Your task to perform on an android device: Open Amazon Image 0: 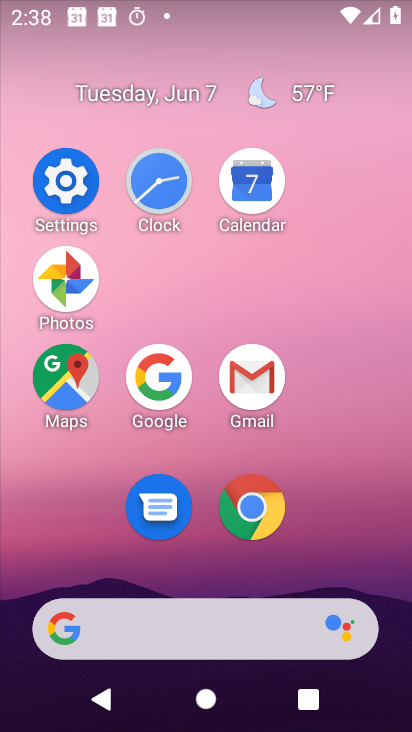
Step 0: click (242, 516)
Your task to perform on an android device: Open Amazon Image 1: 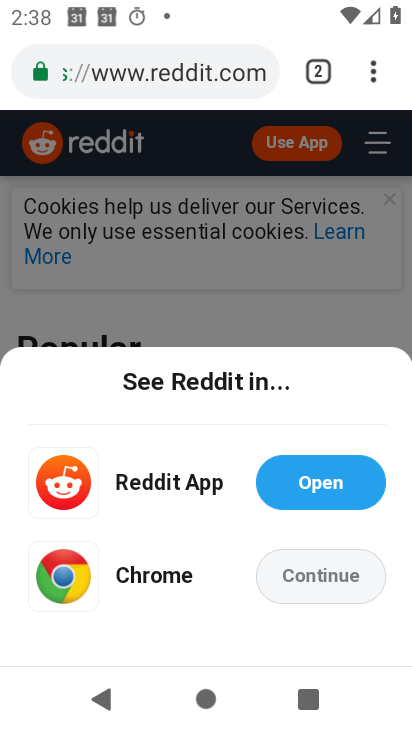
Step 1: click (320, 78)
Your task to perform on an android device: Open Amazon Image 2: 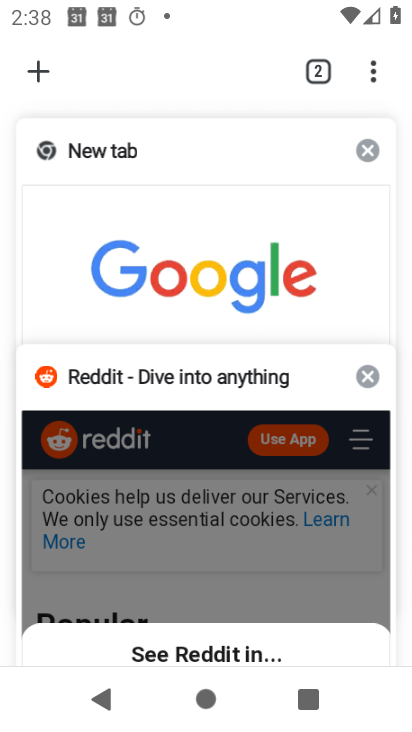
Step 2: click (43, 79)
Your task to perform on an android device: Open Amazon Image 3: 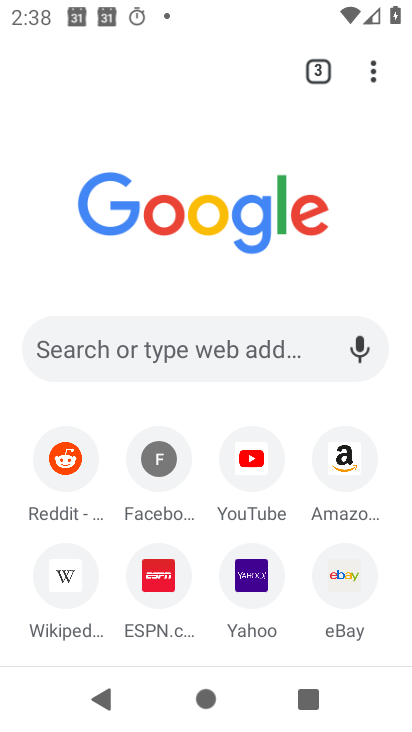
Step 3: click (354, 456)
Your task to perform on an android device: Open Amazon Image 4: 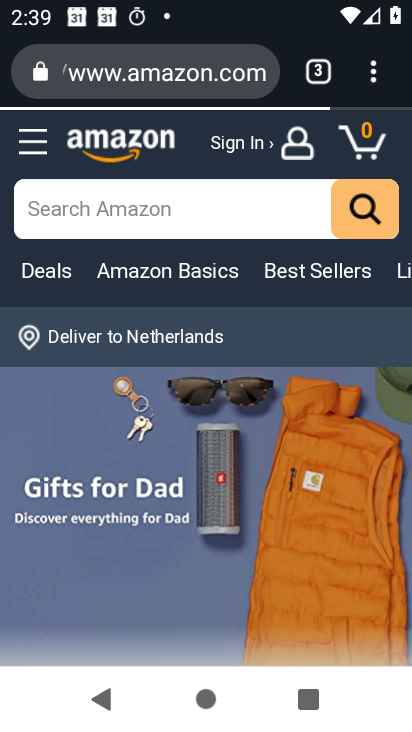
Step 4: task complete